Your task to perform on an android device: Turn off the flashlight Image 0: 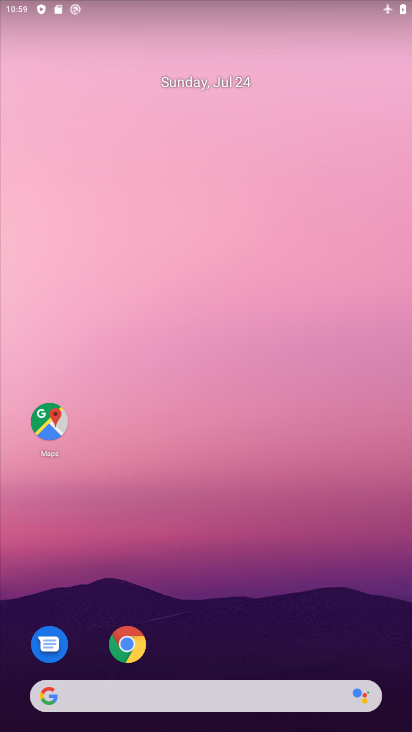
Step 0: drag from (267, 664) to (258, 6)
Your task to perform on an android device: Turn off the flashlight Image 1: 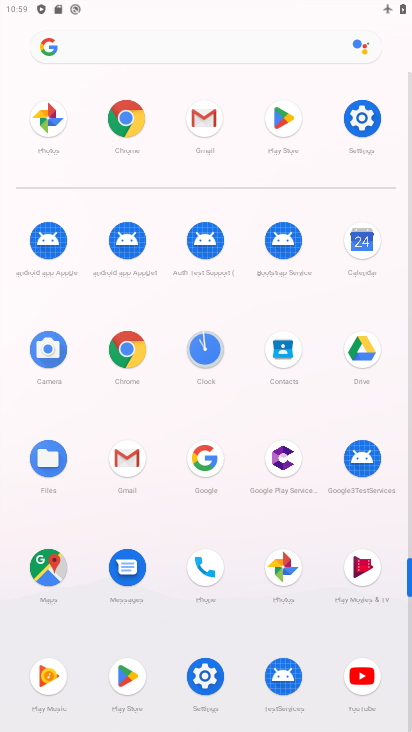
Step 1: task complete